Your task to perform on an android device: Open Yahoo.com Image 0: 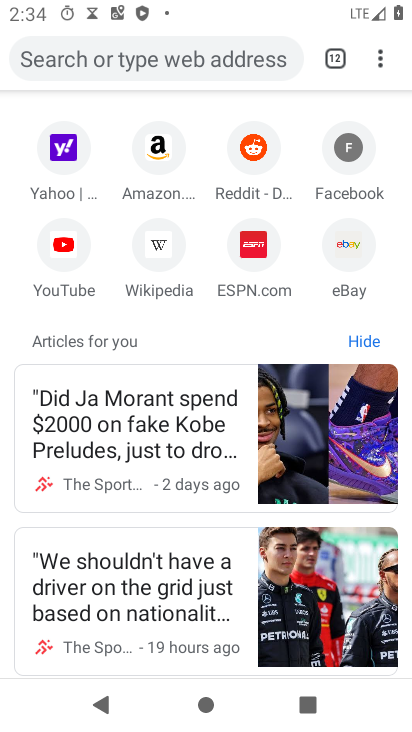
Step 0: press home button
Your task to perform on an android device: Open Yahoo.com Image 1: 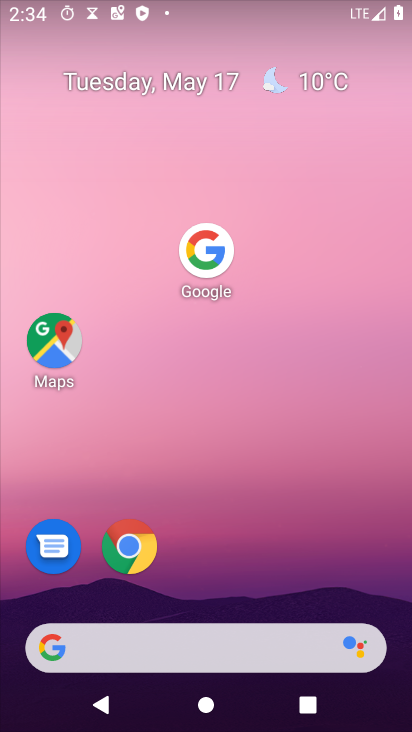
Step 1: drag from (107, 639) to (287, 143)
Your task to perform on an android device: Open Yahoo.com Image 2: 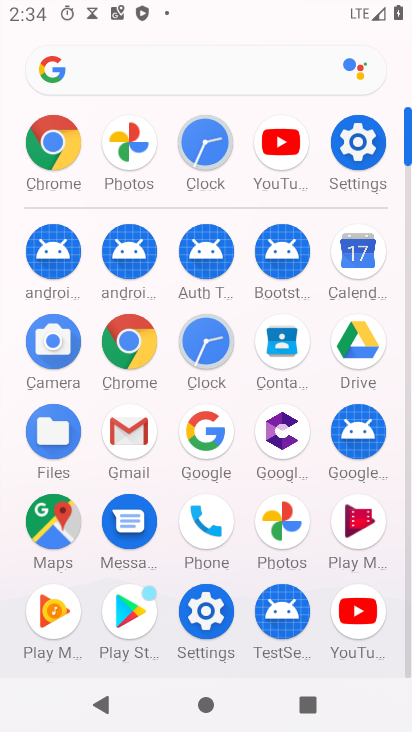
Step 2: click (62, 137)
Your task to perform on an android device: Open Yahoo.com Image 3: 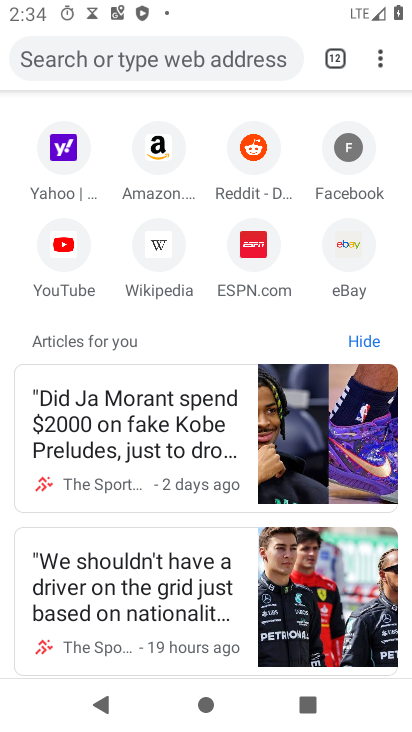
Step 3: drag from (382, 67) to (233, 118)
Your task to perform on an android device: Open Yahoo.com Image 4: 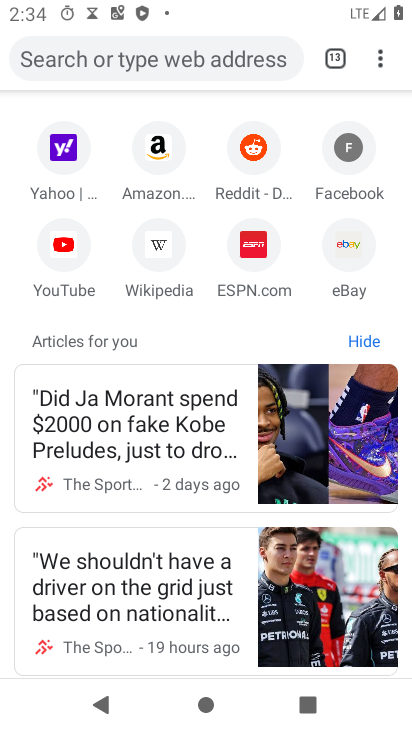
Step 4: click (59, 152)
Your task to perform on an android device: Open Yahoo.com Image 5: 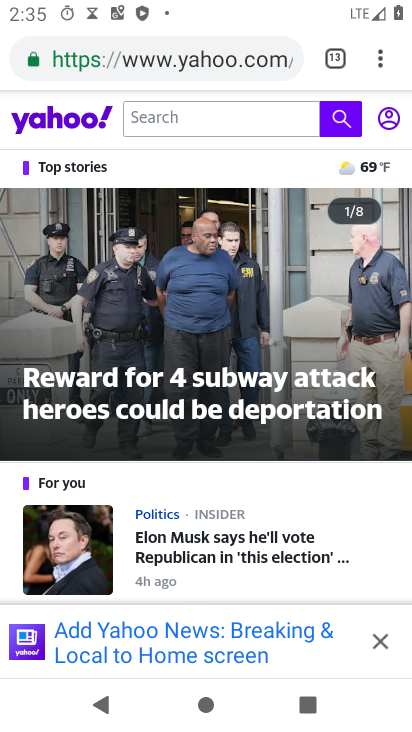
Step 5: task complete